Your task to perform on an android device: Show me the alarms in the clock app Image 0: 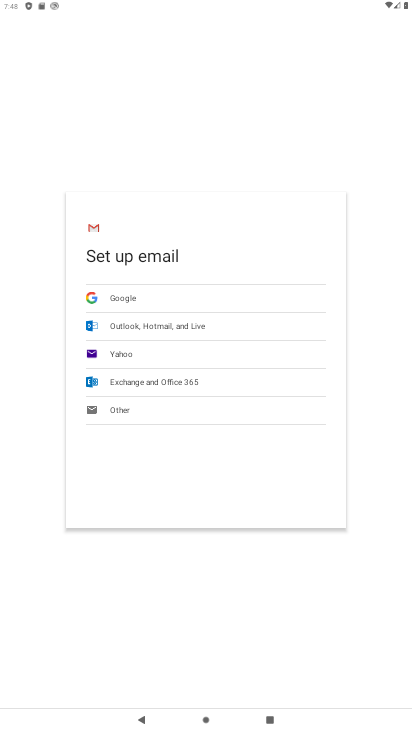
Step 0: press home button
Your task to perform on an android device: Show me the alarms in the clock app Image 1: 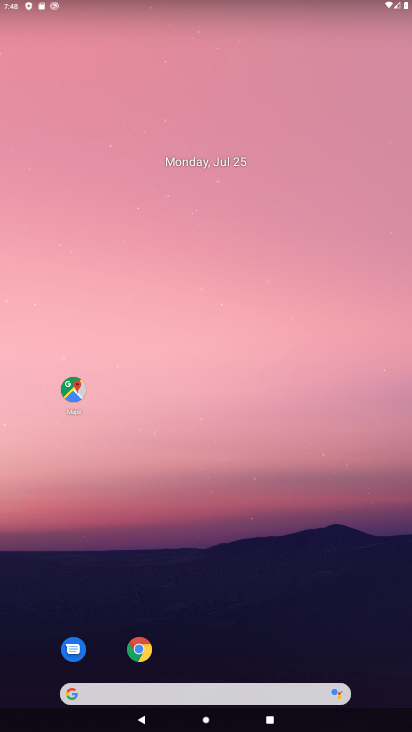
Step 1: drag from (364, 655) to (347, 224)
Your task to perform on an android device: Show me the alarms in the clock app Image 2: 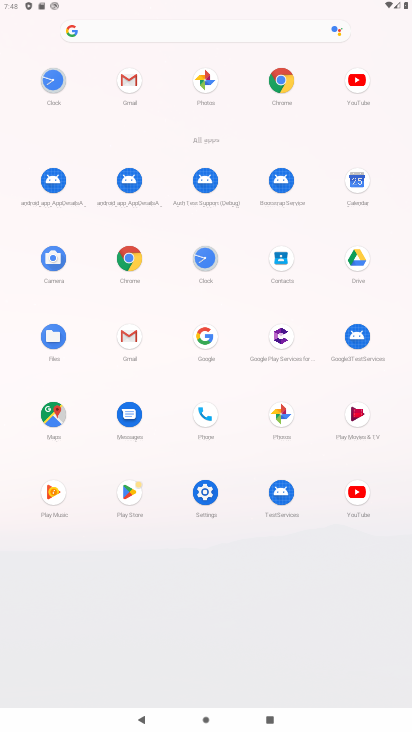
Step 2: click (203, 259)
Your task to perform on an android device: Show me the alarms in the clock app Image 3: 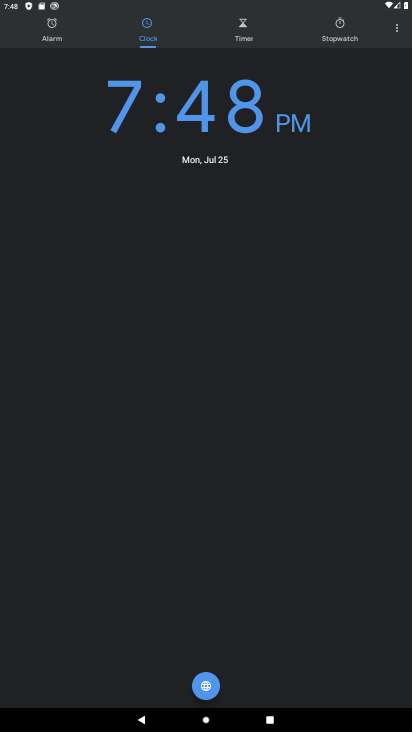
Step 3: click (50, 29)
Your task to perform on an android device: Show me the alarms in the clock app Image 4: 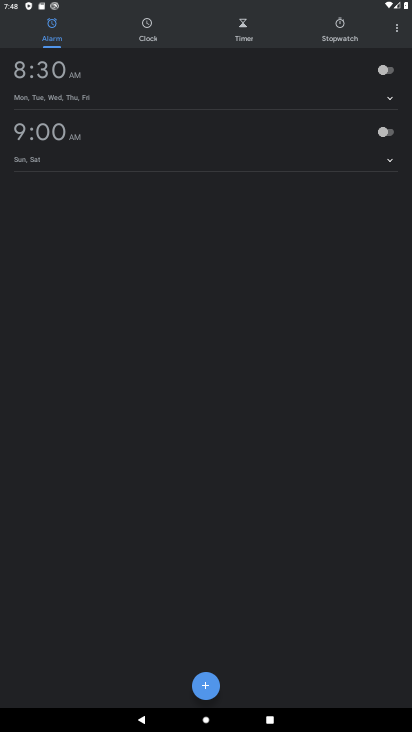
Step 4: task complete